Your task to perform on an android device: Turn off the flashlight Image 0: 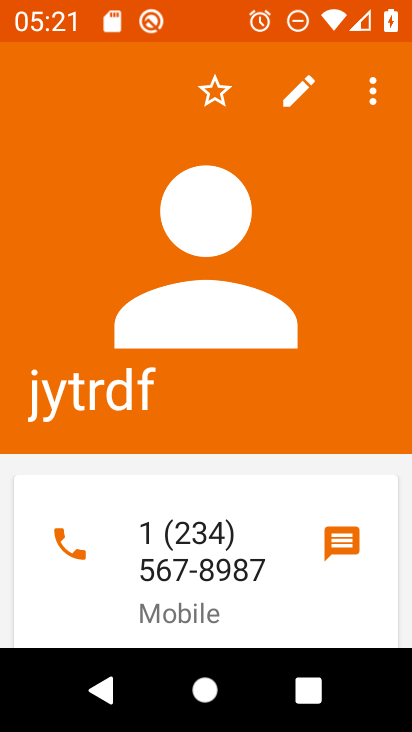
Step 0: press home button
Your task to perform on an android device: Turn off the flashlight Image 1: 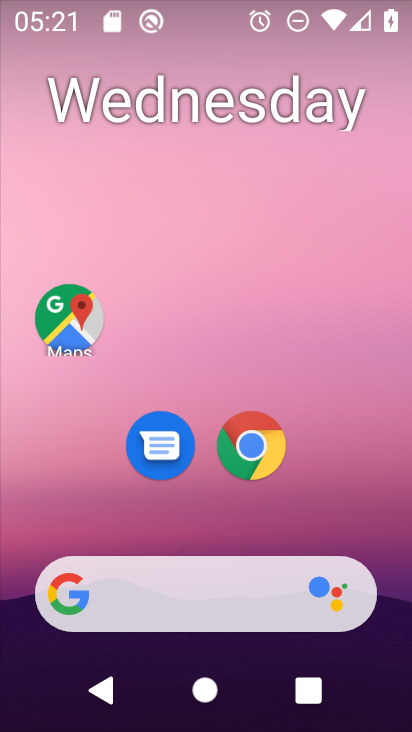
Step 1: drag from (167, 535) to (213, 149)
Your task to perform on an android device: Turn off the flashlight Image 2: 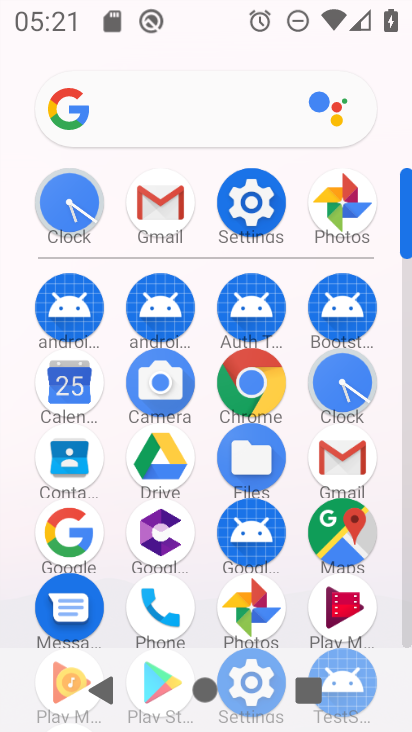
Step 2: click (239, 219)
Your task to perform on an android device: Turn off the flashlight Image 3: 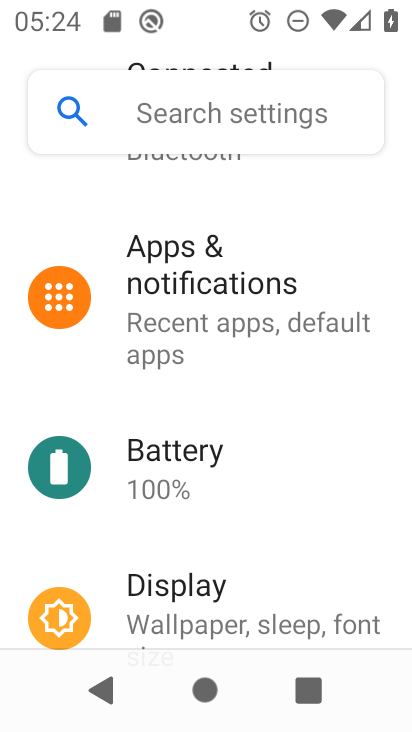
Step 3: task complete